Your task to perform on an android device: turn on wifi Image 0: 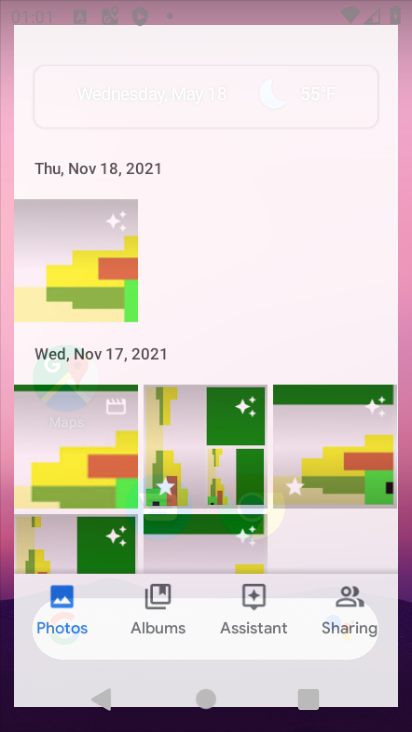
Step 0: drag from (392, 619) to (338, 187)
Your task to perform on an android device: turn on wifi Image 1: 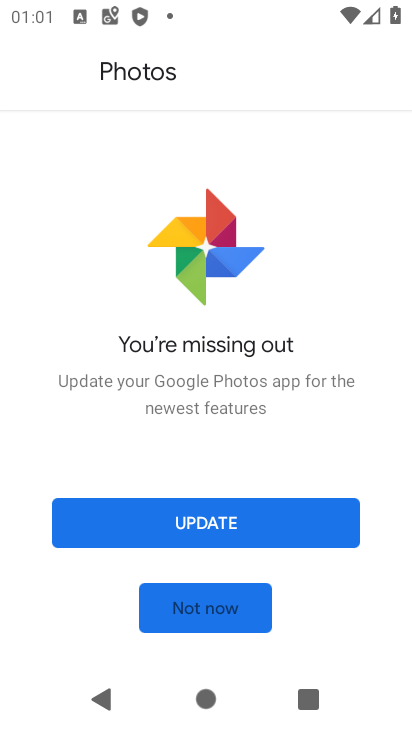
Step 1: press home button
Your task to perform on an android device: turn on wifi Image 2: 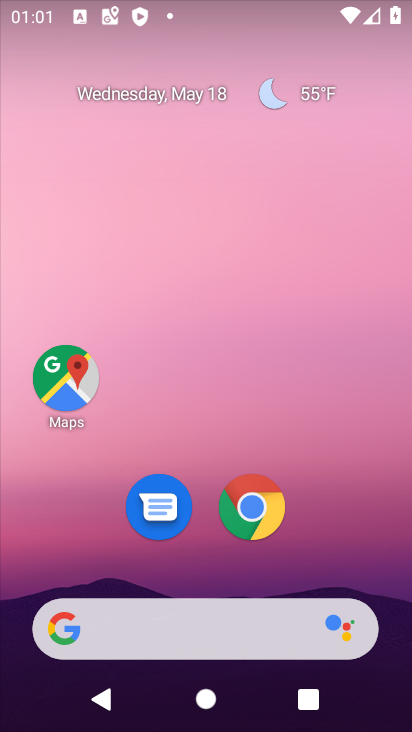
Step 2: drag from (397, 629) to (365, 185)
Your task to perform on an android device: turn on wifi Image 3: 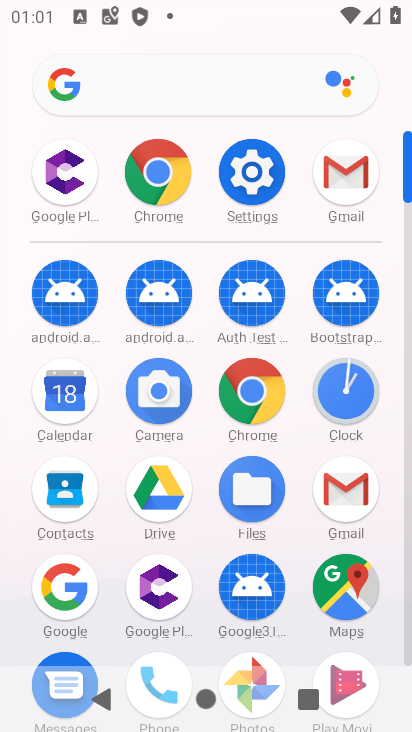
Step 3: click (408, 648)
Your task to perform on an android device: turn on wifi Image 4: 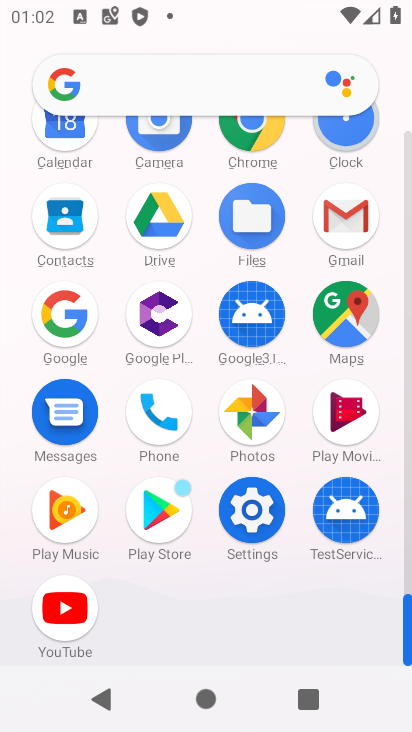
Step 4: click (256, 512)
Your task to perform on an android device: turn on wifi Image 5: 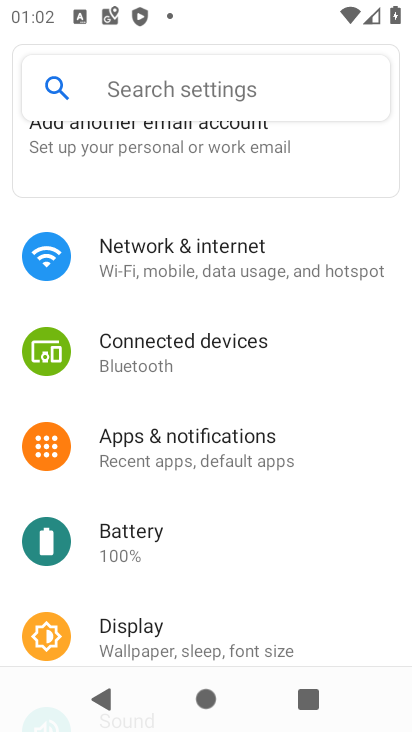
Step 5: click (135, 238)
Your task to perform on an android device: turn on wifi Image 6: 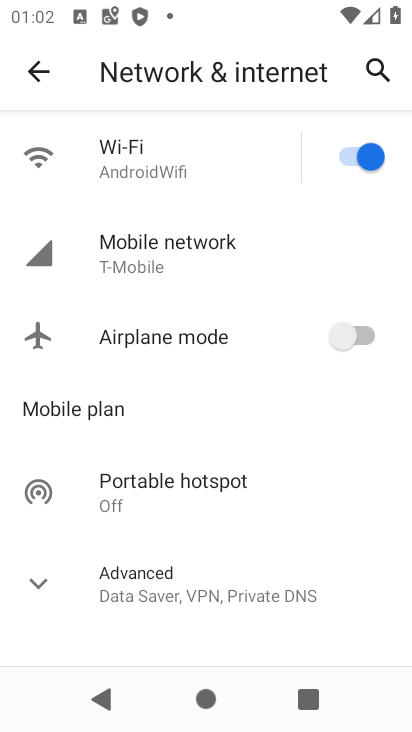
Step 6: task complete